Your task to perform on an android device: turn off priority inbox in the gmail app Image 0: 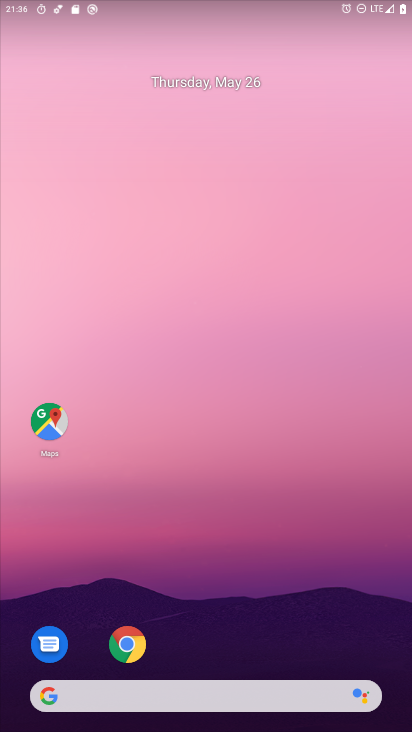
Step 0: drag from (199, 675) to (206, 306)
Your task to perform on an android device: turn off priority inbox in the gmail app Image 1: 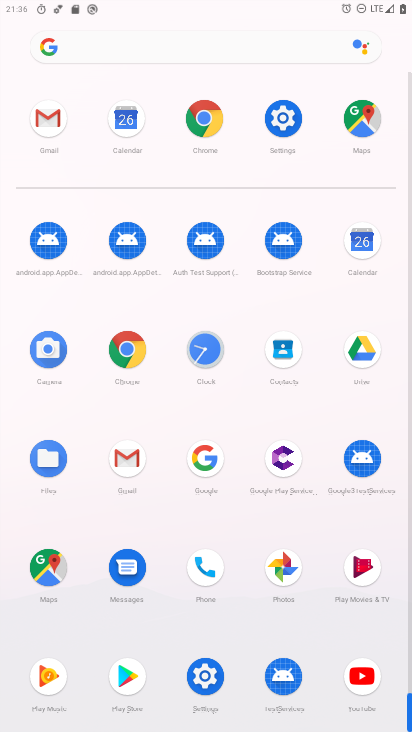
Step 1: click (115, 461)
Your task to perform on an android device: turn off priority inbox in the gmail app Image 2: 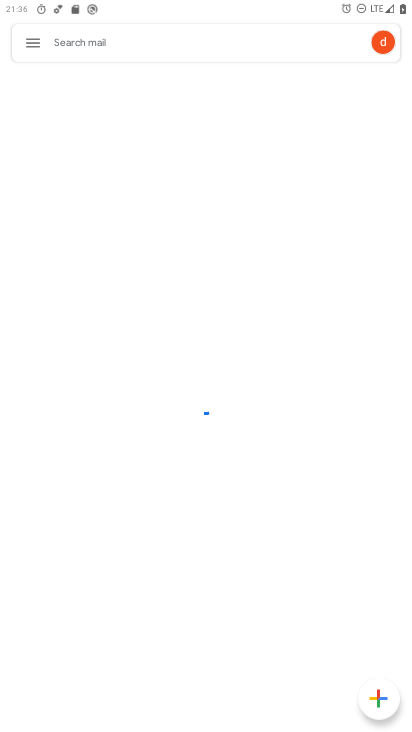
Step 2: drag from (129, 589) to (186, 312)
Your task to perform on an android device: turn off priority inbox in the gmail app Image 3: 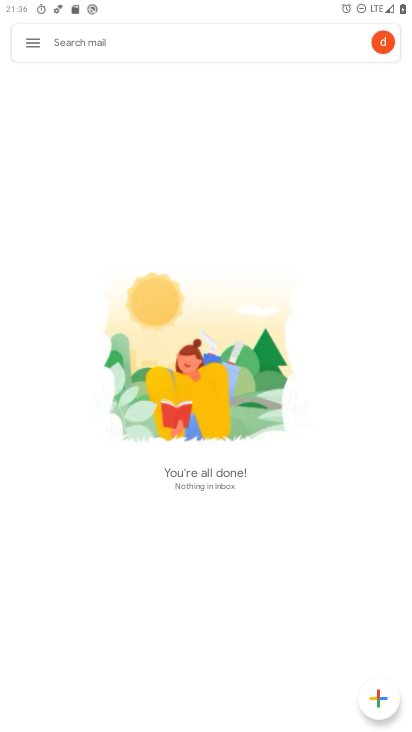
Step 3: drag from (175, 243) to (221, 632)
Your task to perform on an android device: turn off priority inbox in the gmail app Image 4: 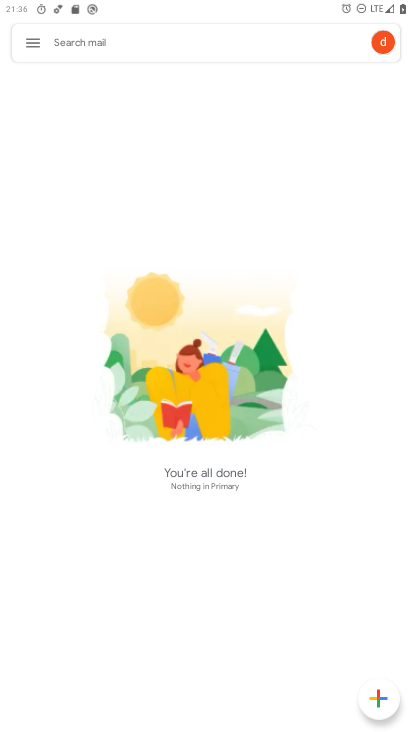
Step 4: click (33, 36)
Your task to perform on an android device: turn off priority inbox in the gmail app Image 5: 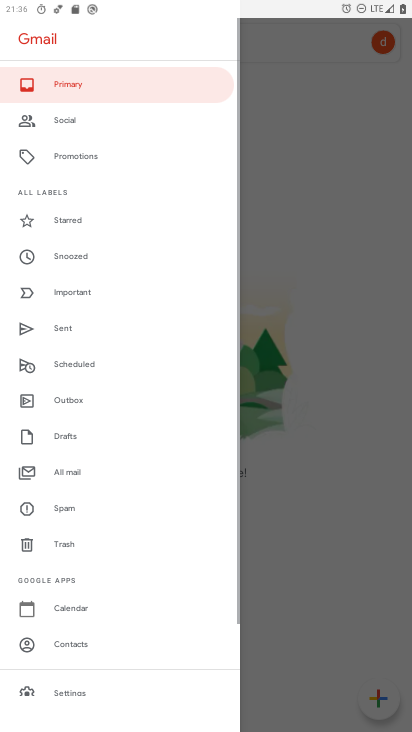
Step 5: drag from (113, 594) to (144, 230)
Your task to perform on an android device: turn off priority inbox in the gmail app Image 6: 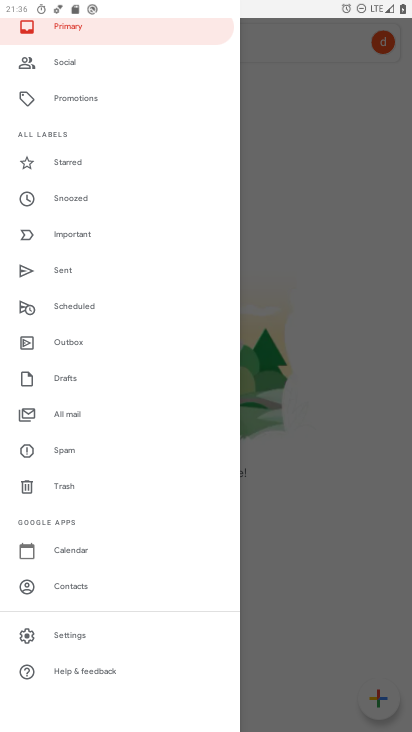
Step 6: click (115, 642)
Your task to perform on an android device: turn off priority inbox in the gmail app Image 7: 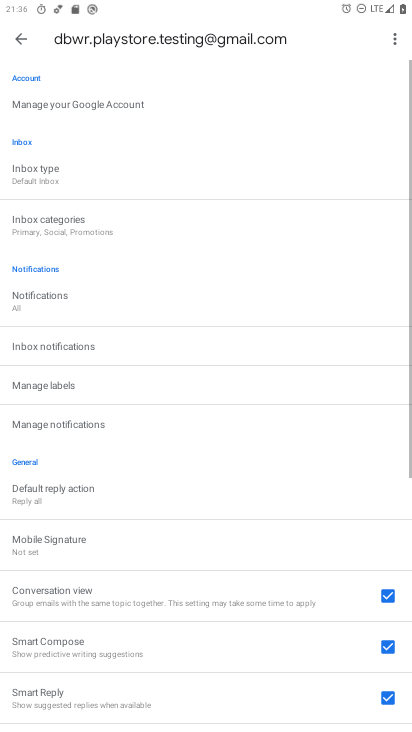
Step 7: drag from (90, 453) to (108, 344)
Your task to perform on an android device: turn off priority inbox in the gmail app Image 8: 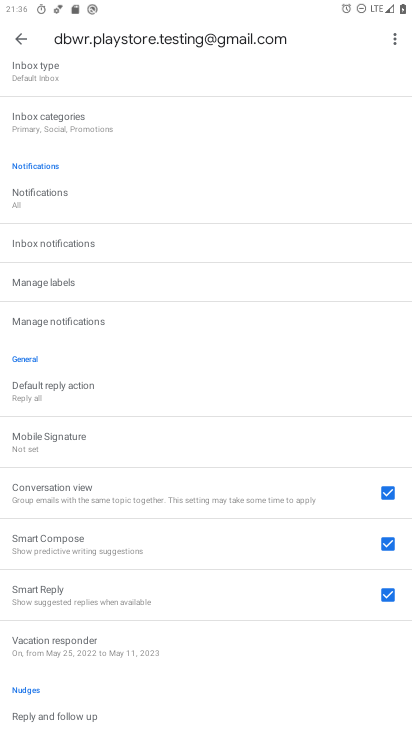
Step 8: drag from (173, 144) to (205, 630)
Your task to perform on an android device: turn off priority inbox in the gmail app Image 9: 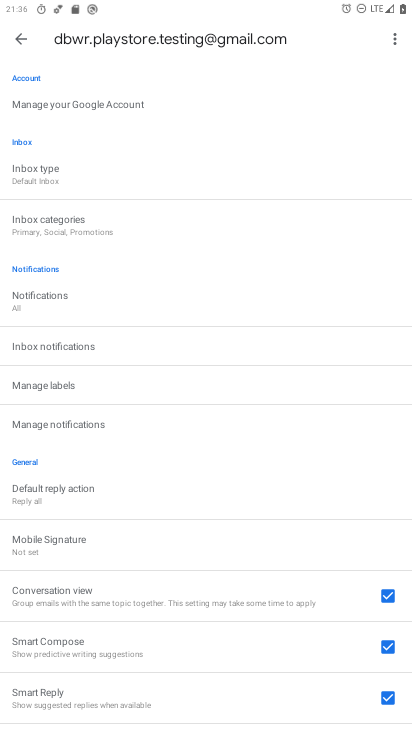
Step 9: click (56, 169)
Your task to perform on an android device: turn off priority inbox in the gmail app Image 10: 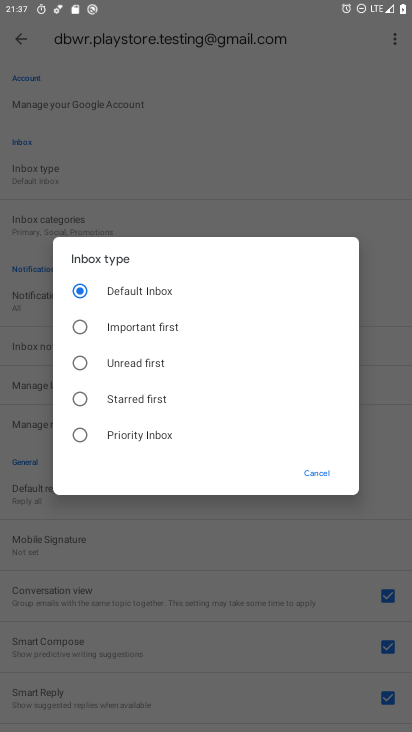
Step 10: task complete